Your task to perform on an android device: turn off wifi Image 0: 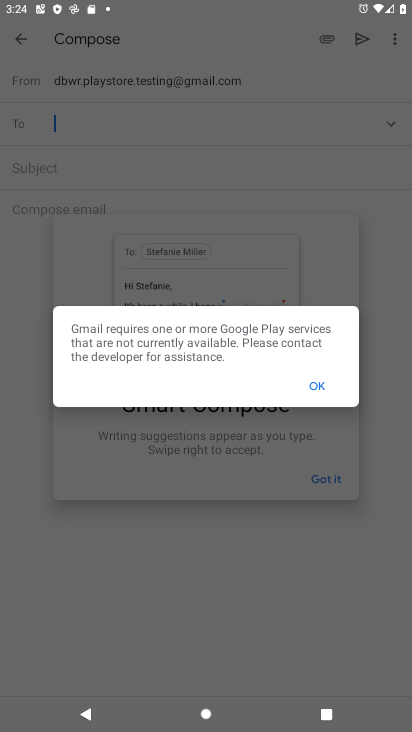
Step 0: press home button
Your task to perform on an android device: turn off wifi Image 1: 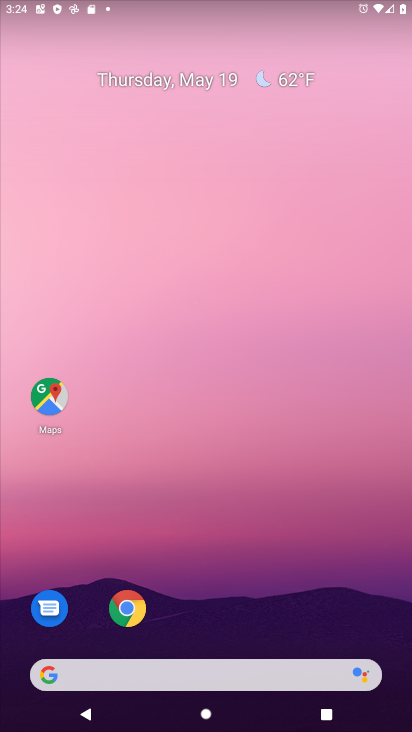
Step 1: drag from (222, 618) to (166, 310)
Your task to perform on an android device: turn off wifi Image 2: 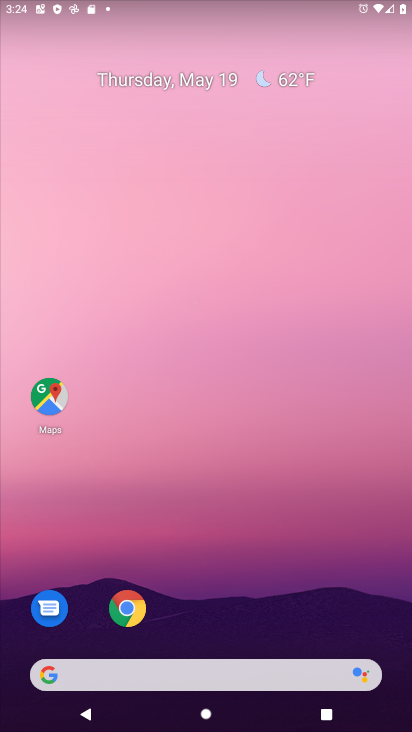
Step 2: drag from (242, 613) to (221, 216)
Your task to perform on an android device: turn off wifi Image 3: 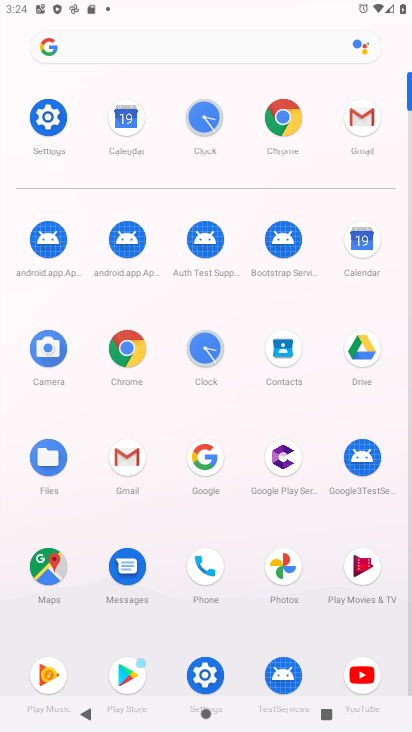
Step 3: click (36, 107)
Your task to perform on an android device: turn off wifi Image 4: 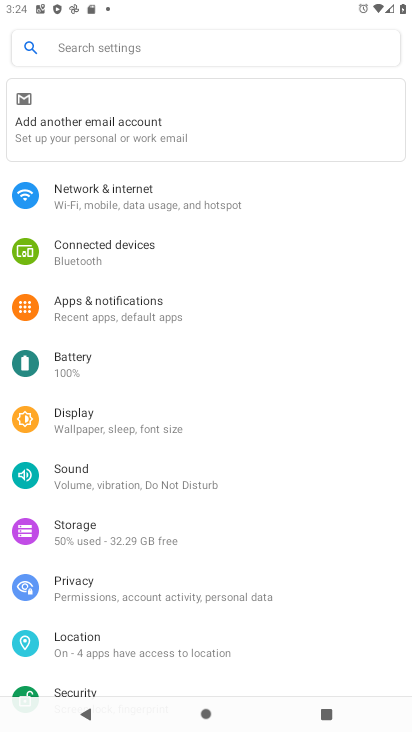
Step 4: click (127, 181)
Your task to perform on an android device: turn off wifi Image 5: 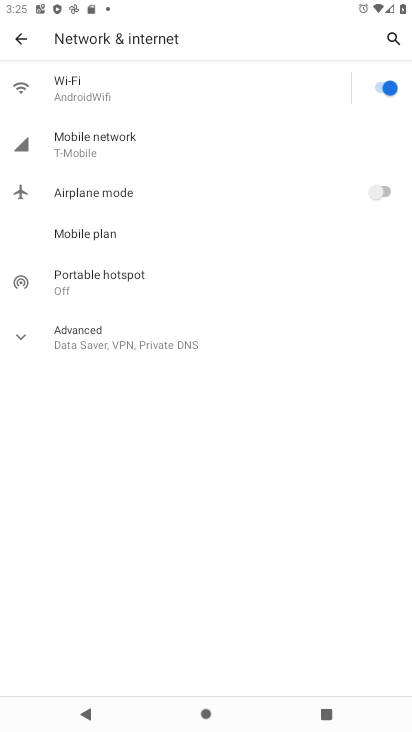
Step 5: click (48, 100)
Your task to perform on an android device: turn off wifi Image 6: 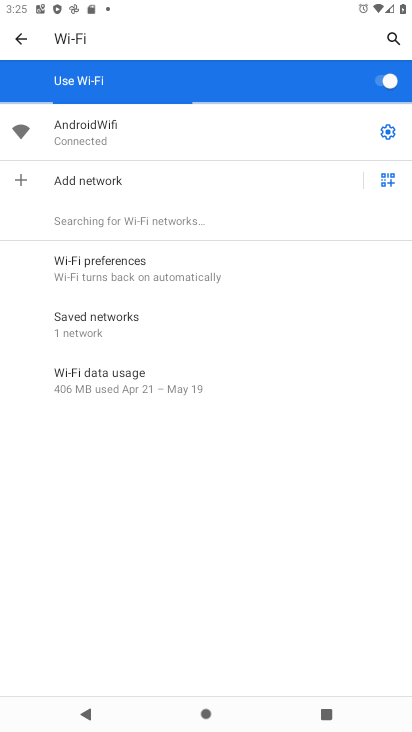
Step 6: task complete